Your task to perform on an android device: Go to calendar. Show me events next week Image 0: 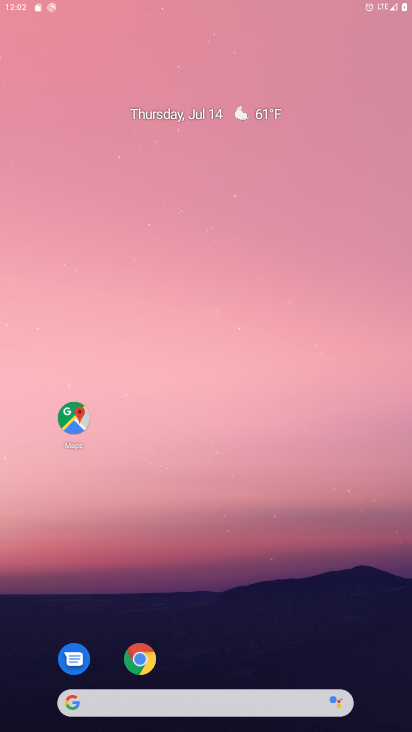
Step 0: press home button
Your task to perform on an android device: Go to calendar. Show me events next week Image 1: 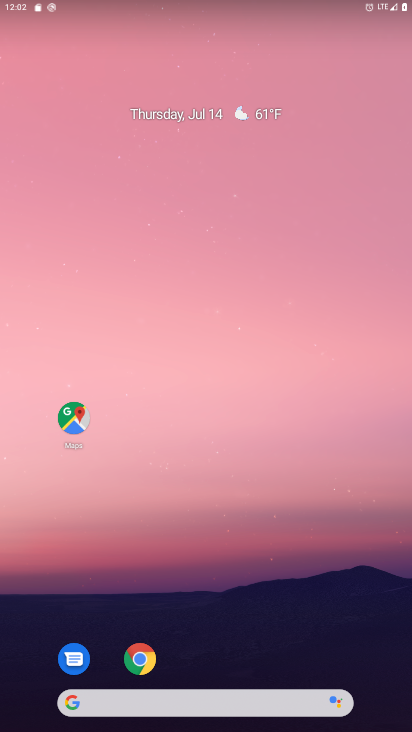
Step 1: drag from (205, 542) to (221, 1)
Your task to perform on an android device: Go to calendar. Show me events next week Image 2: 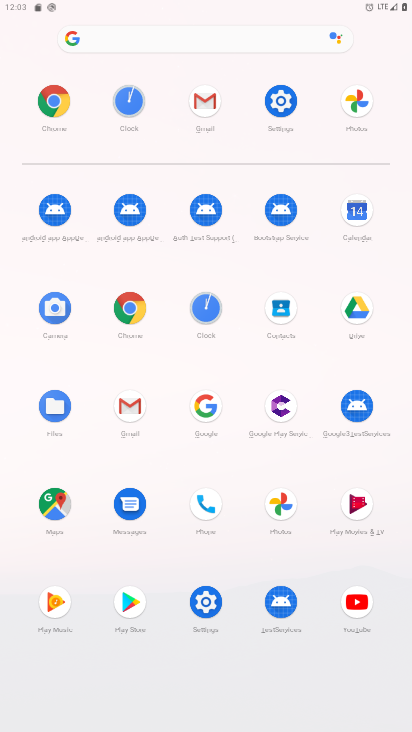
Step 2: click (355, 207)
Your task to perform on an android device: Go to calendar. Show me events next week Image 3: 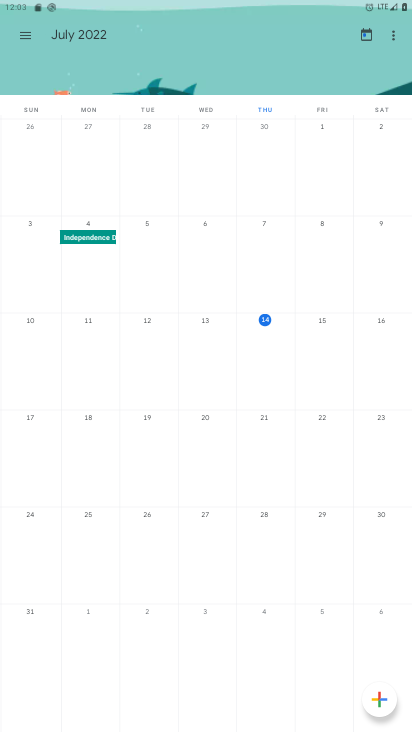
Step 3: click (102, 36)
Your task to perform on an android device: Go to calendar. Show me events next week Image 4: 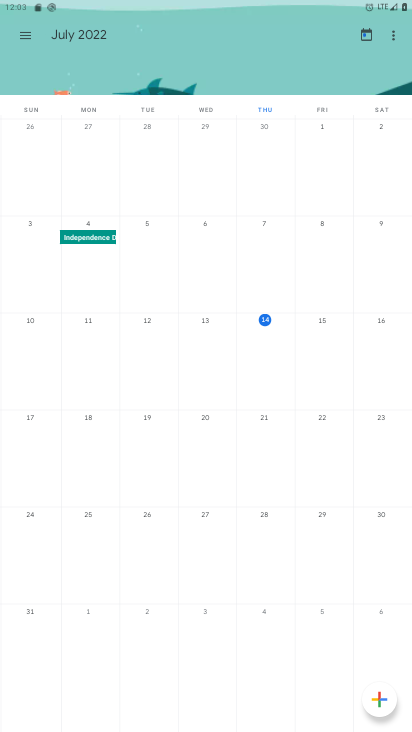
Step 4: click (28, 29)
Your task to perform on an android device: Go to calendar. Show me events next week Image 5: 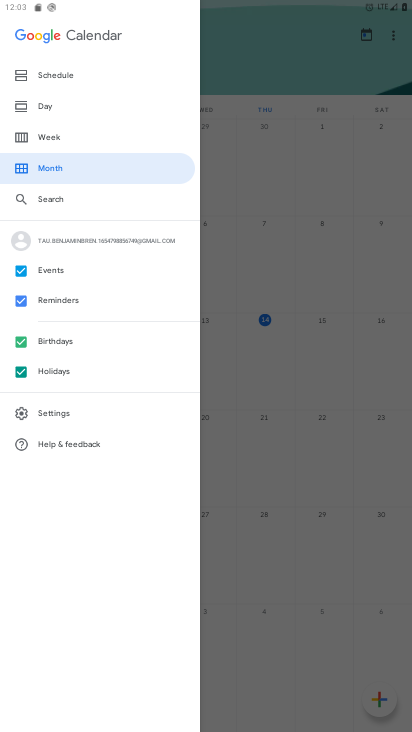
Step 5: click (51, 172)
Your task to perform on an android device: Go to calendar. Show me events next week Image 6: 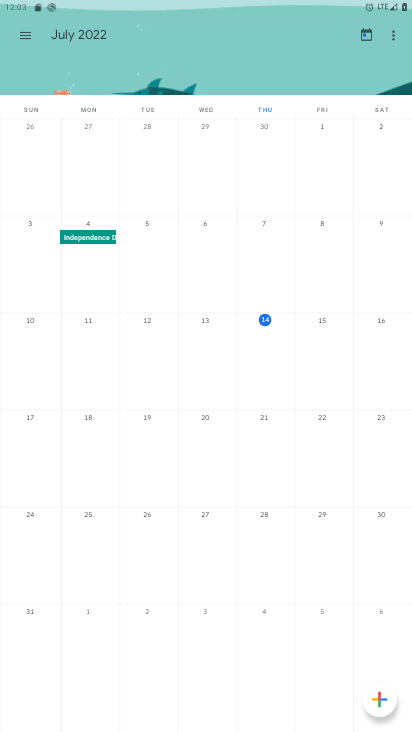
Step 6: click (45, 425)
Your task to perform on an android device: Go to calendar. Show me events next week Image 7: 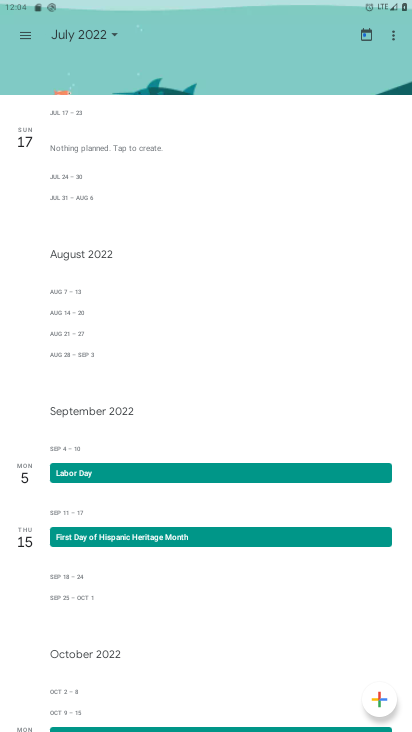
Step 7: click (22, 36)
Your task to perform on an android device: Go to calendar. Show me events next week Image 8: 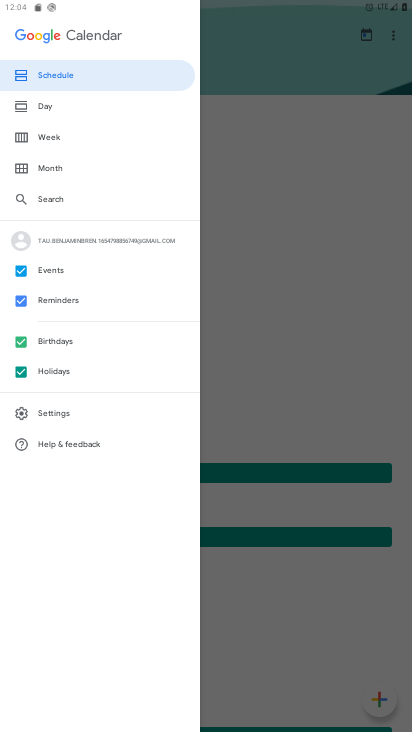
Step 8: click (25, 299)
Your task to perform on an android device: Go to calendar. Show me events next week Image 9: 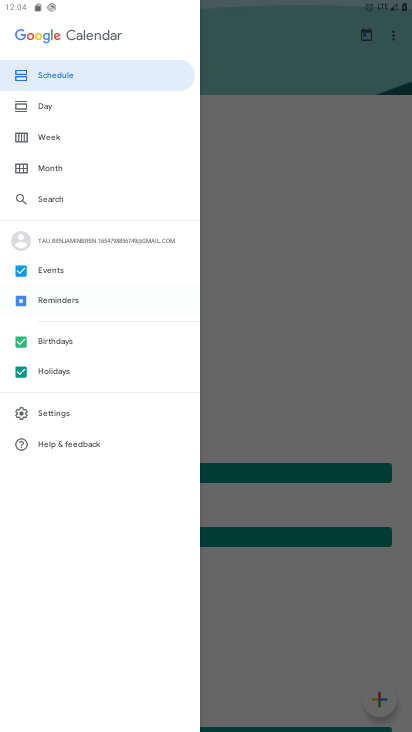
Step 9: click (22, 344)
Your task to perform on an android device: Go to calendar. Show me events next week Image 10: 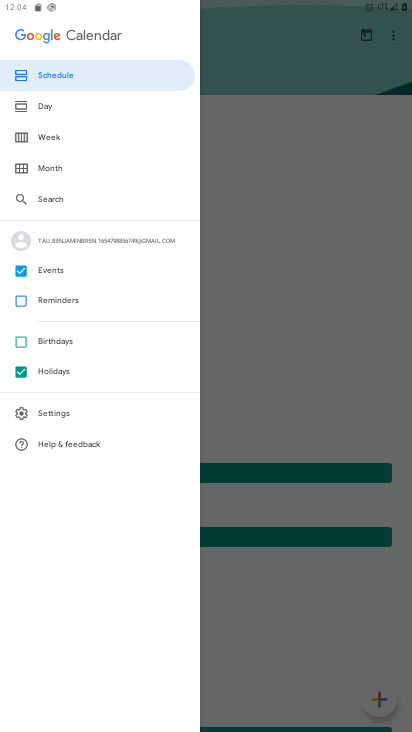
Step 10: click (21, 373)
Your task to perform on an android device: Go to calendar. Show me events next week Image 11: 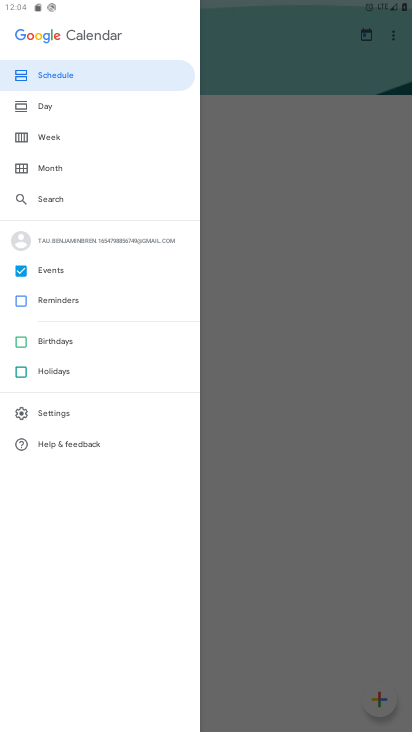
Step 11: task complete